Your task to perform on an android device: turn on wifi Image 0: 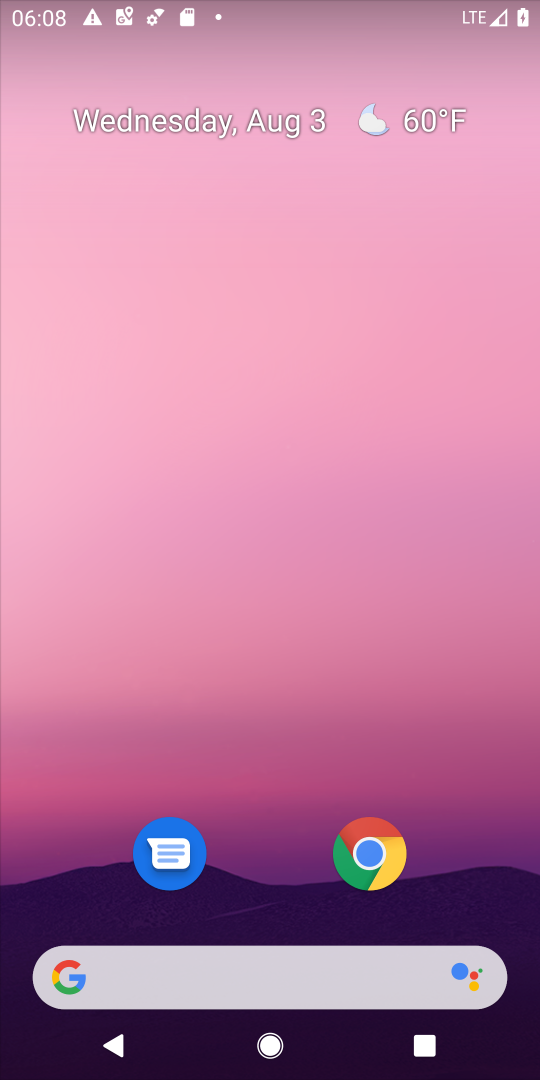
Step 0: drag from (268, 888) to (332, 47)
Your task to perform on an android device: turn on wifi Image 1: 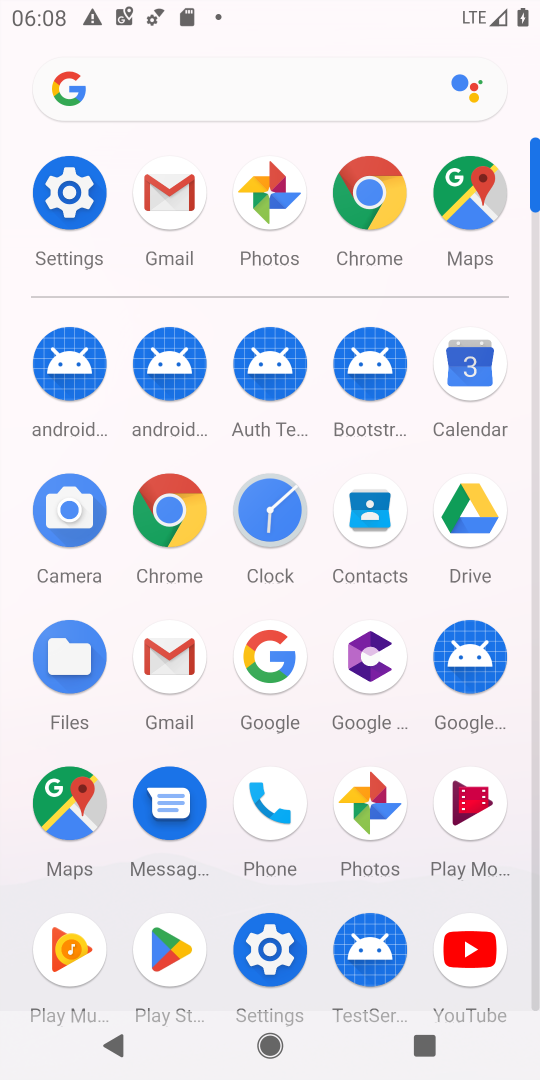
Step 1: click (69, 186)
Your task to perform on an android device: turn on wifi Image 2: 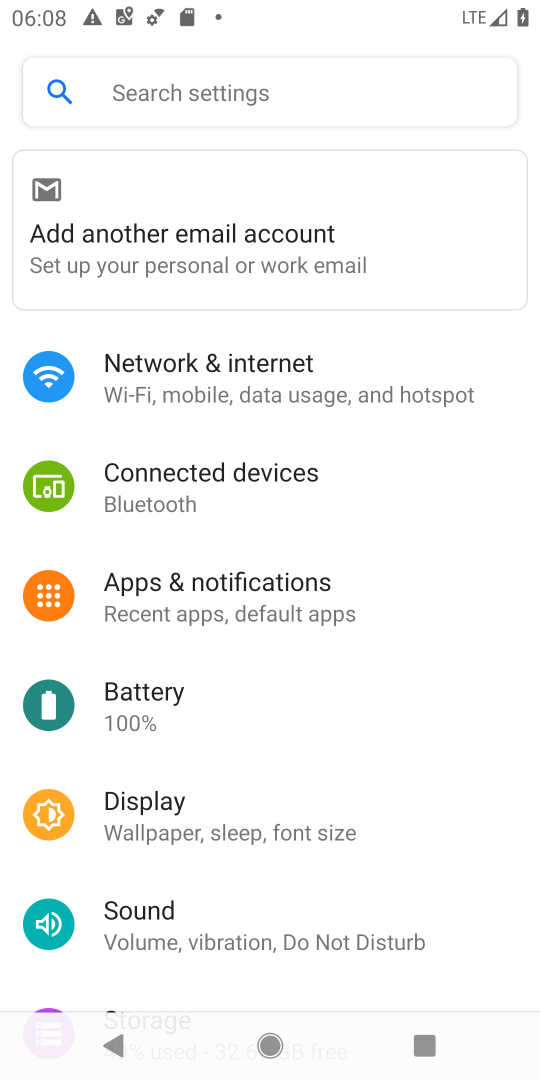
Step 2: click (201, 388)
Your task to perform on an android device: turn on wifi Image 3: 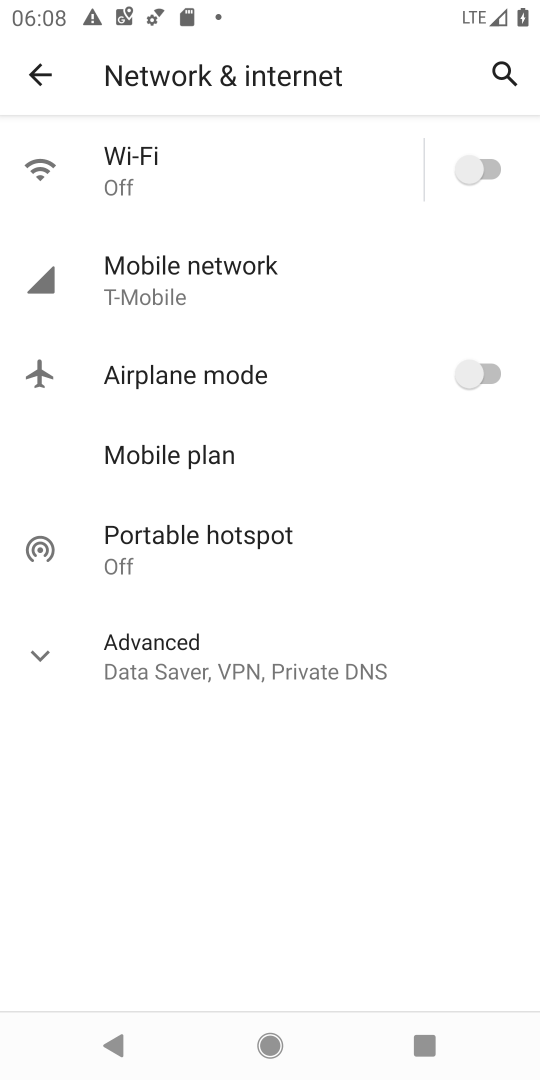
Step 3: click (495, 168)
Your task to perform on an android device: turn on wifi Image 4: 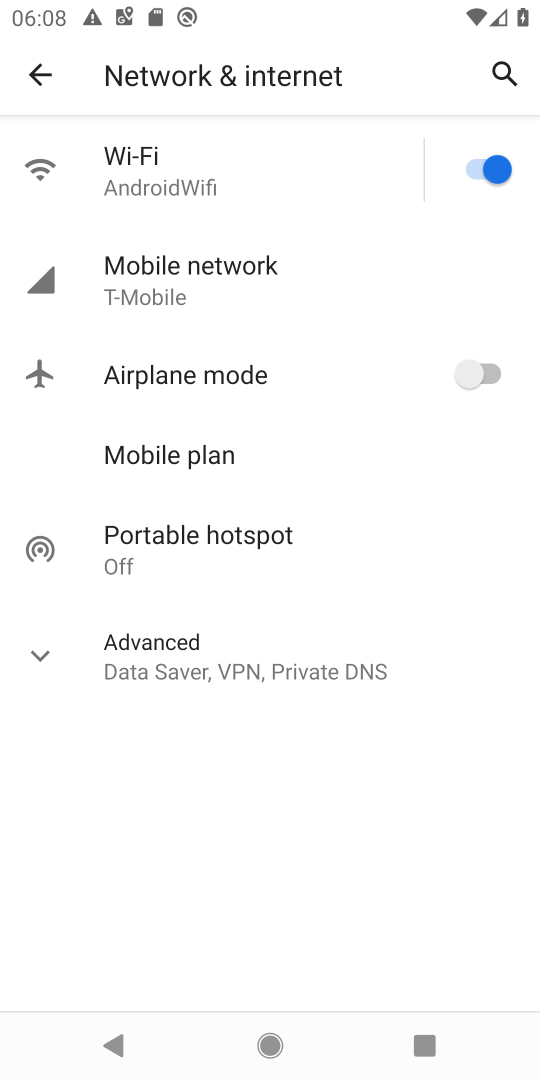
Step 4: task complete